Your task to perform on an android device: Search for sushi restaurants on Maps Image 0: 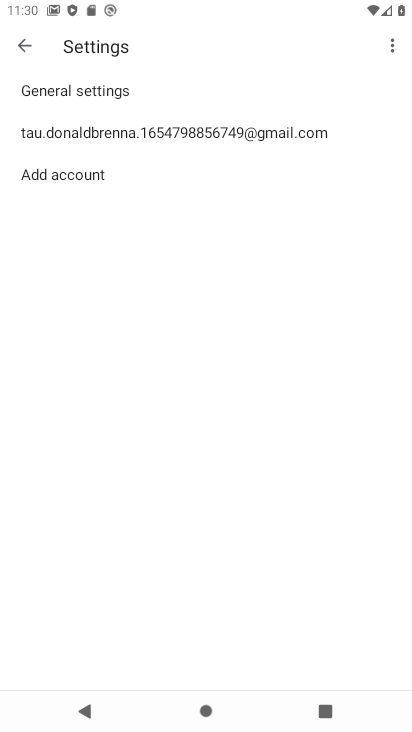
Step 0: press home button
Your task to perform on an android device: Search for sushi restaurants on Maps Image 1: 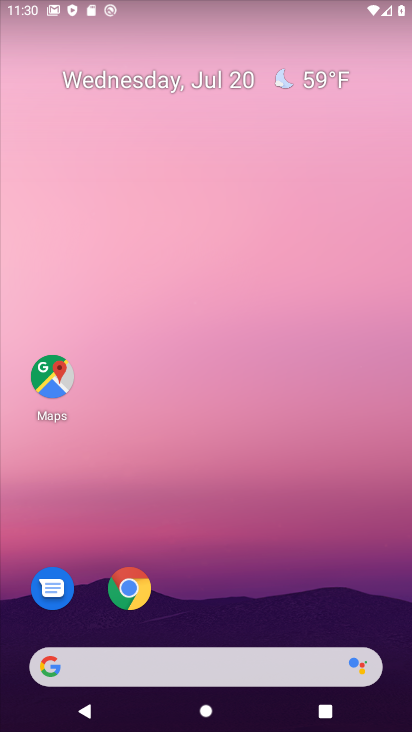
Step 1: click (56, 378)
Your task to perform on an android device: Search for sushi restaurants on Maps Image 2: 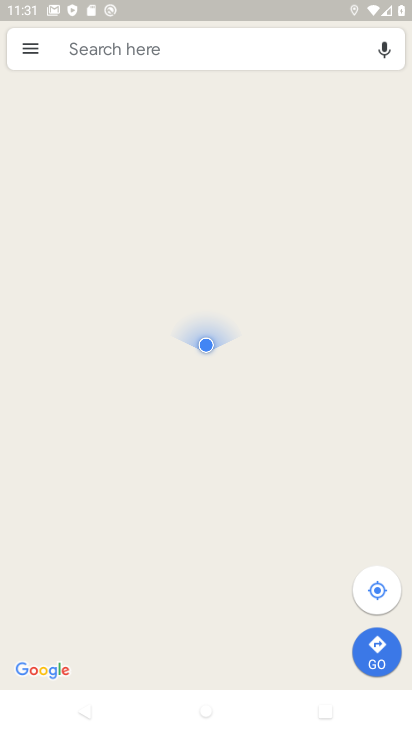
Step 2: click (96, 47)
Your task to perform on an android device: Search for sushi restaurants on Maps Image 3: 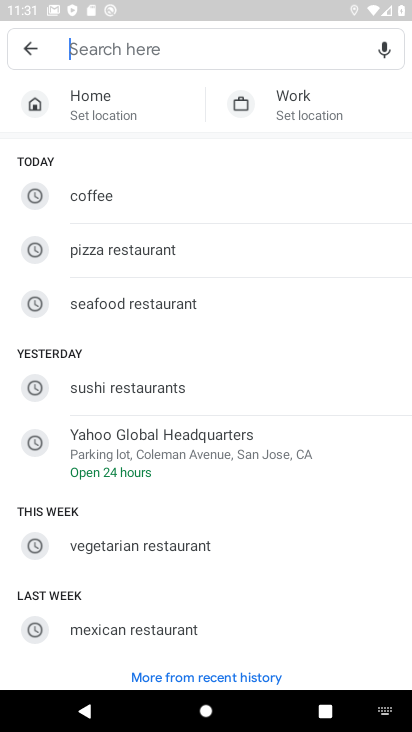
Step 3: click (114, 385)
Your task to perform on an android device: Search for sushi restaurants on Maps Image 4: 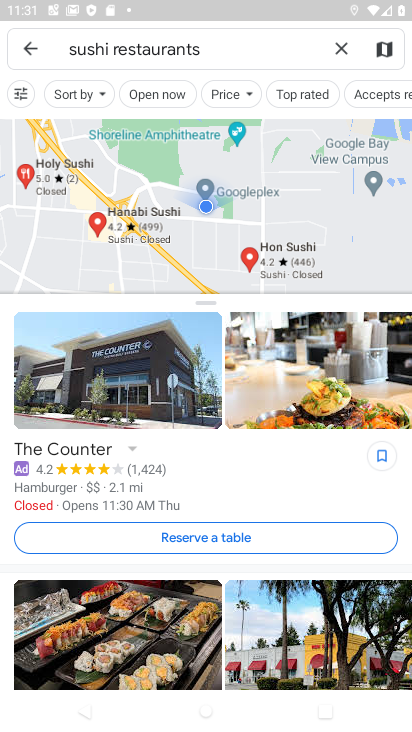
Step 4: task complete